Your task to perform on an android device: What's on my calendar tomorrow? Image 0: 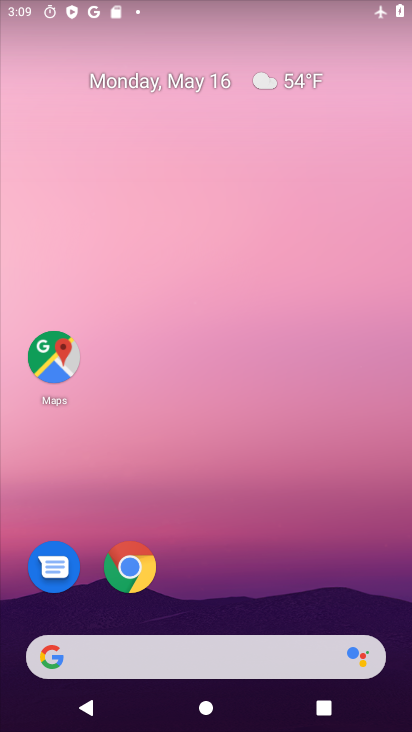
Step 0: drag from (235, 589) to (149, 153)
Your task to perform on an android device: What's on my calendar tomorrow? Image 1: 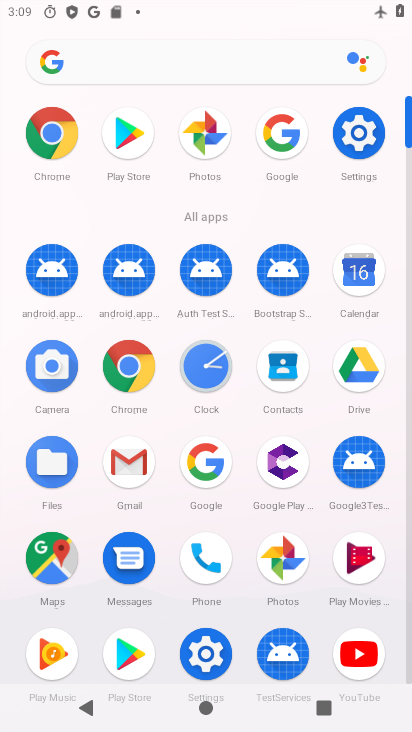
Step 1: click (362, 271)
Your task to perform on an android device: What's on my calendar tomorrow? Image 2: 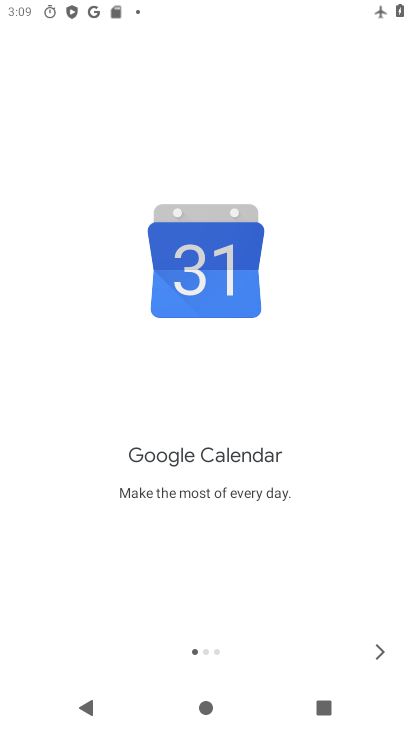
Step 2: click (383, 647)
Your task to perform on an android device: What's on my calendar tomorrow? Image 3: 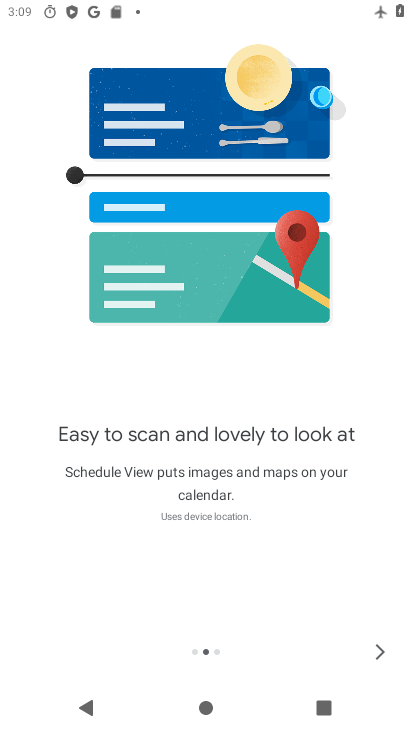
Step 3: click (383, 647)
Your task to perform on an android device: What's on my calendar tomorrow? Image 4: 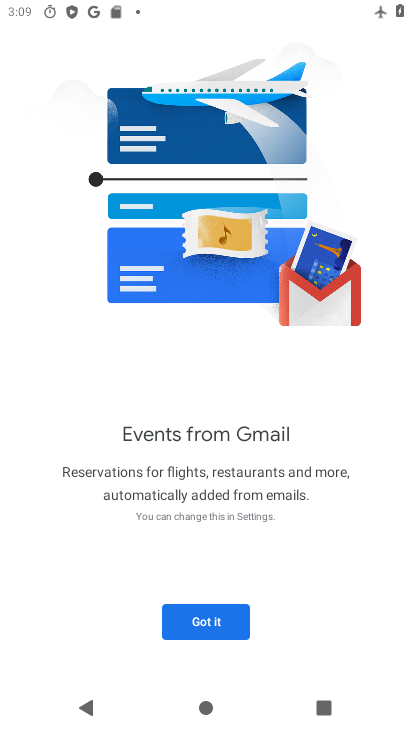
Step 4: click (204, 622)
Your task to perform on an android device: What's on my calendar tomorrow? Image 5: 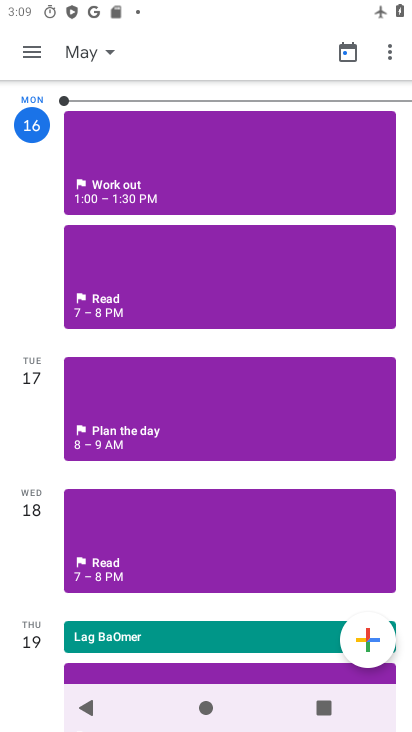
Step 5: click (112, 54)
Your task to perform on an android device: What's on my calendar tomorrow? Image 6: 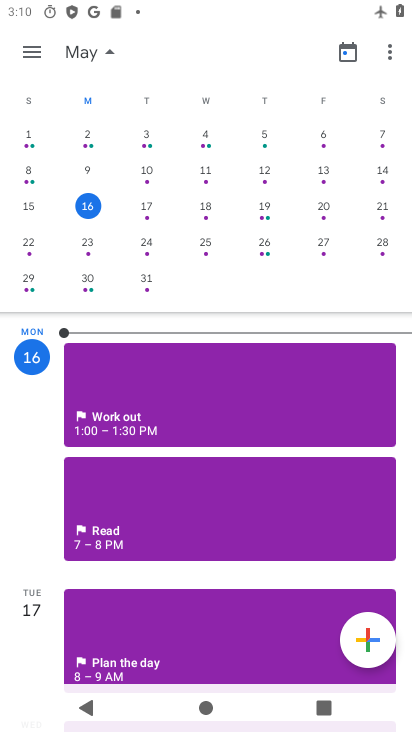
Step 6: click (150, 211)
Your task to perform on an android device: What's on my calendar tomorrow? Image 7: 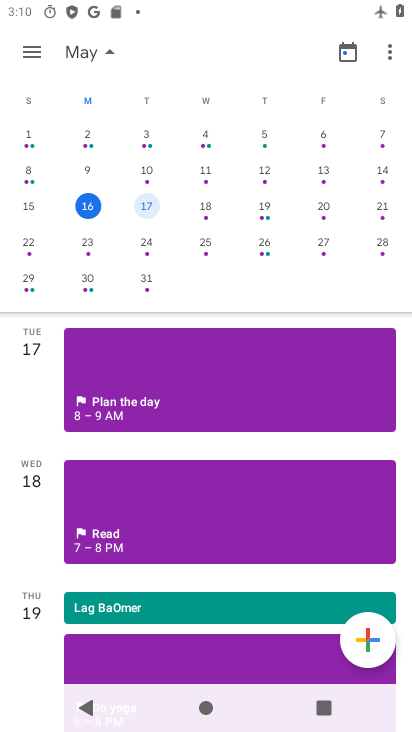
Step 7: click (26, 53)
Your task to perform on an android device: What's on my calendar tomorrow? Image 8: 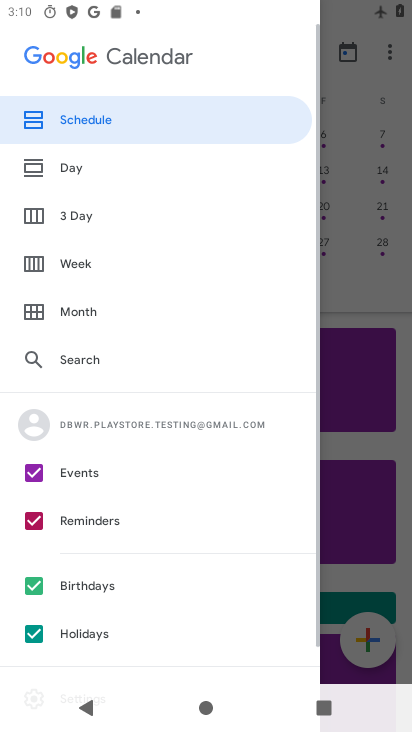
Step 8: click (102, 126)
Your task to perform on an android device: What's on my calendar tomorrow? Image 9: 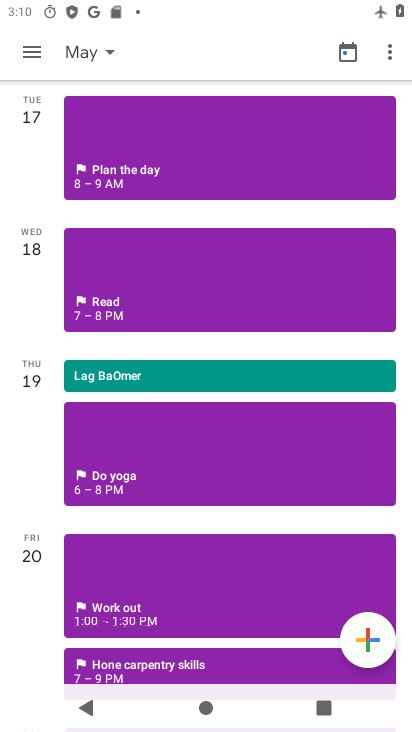
Step 9: click (204, 176)
Your task to perform on an android device: What's on my calendar tomorrow? Image 10: 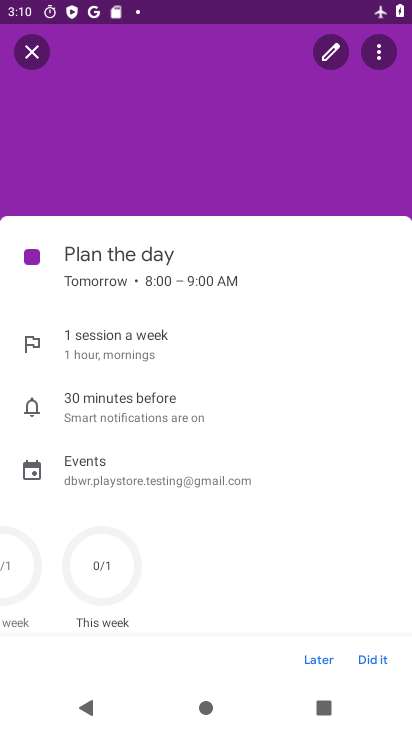
Step 10: task complete